Your task to perform on an android device: open app "Adobe Express: Graphic Design" (install if not already installed) Image 0: 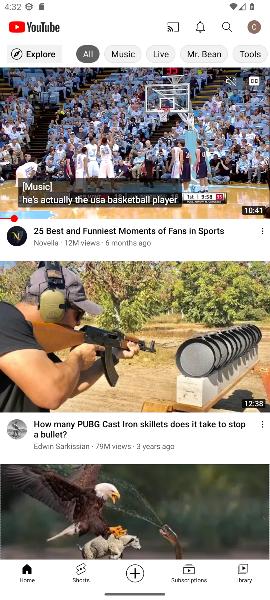
Step 0: press home button
Your task to perform on an android device: open app "Adobe Express: Graphic Design" (install if not already installed) Image 1: 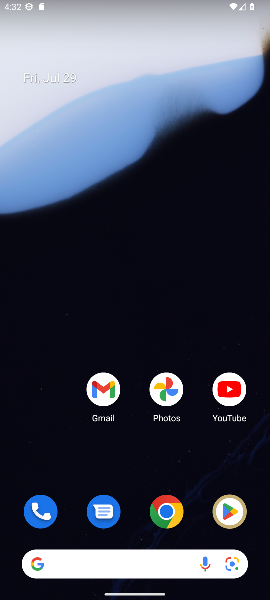
Step 1: drag from (97, 461) to (97, 194)
Your task to perform on an android device: open app "Adobe Express: Graphic Design" (install if not already installed) Image 2: 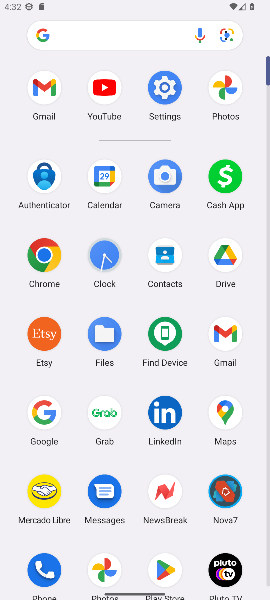
Step 2: click (164, 569)
Your task to perform on an android device: open app "Adobe Express: Graphic Design" (install if not already installed) Image 3: 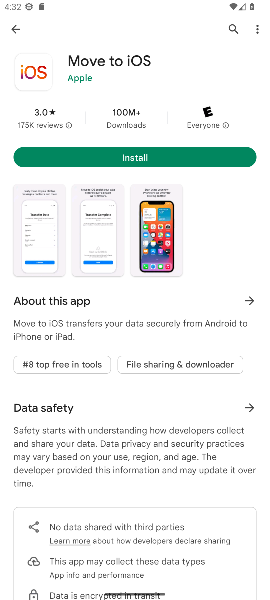
Step 3: click (40, 29)
Your task to perform on an android device: open app "Adobe Express: Graphic Design" (install if not already installed) Image 4: 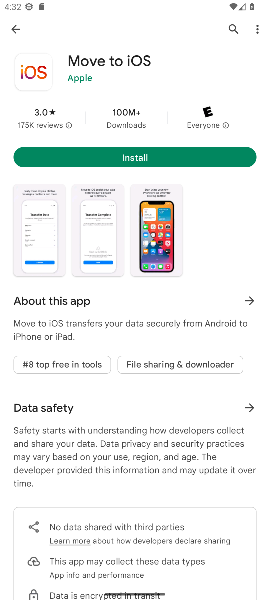
Step 4: click (18, 32)
Your task to perform on an android device: open app "Adobe Express: Graphic Design" (install if not already installed) Image 5: 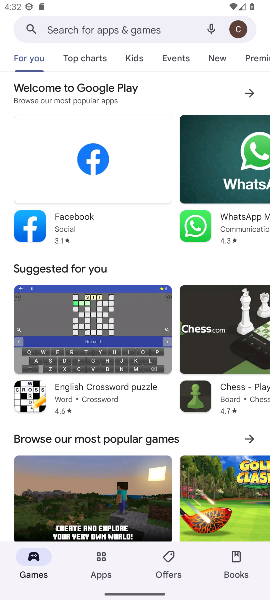
Step 5: click (78, 30)
Your task to perform on an android device: open app "Adobe Express: Graphic Design" (install if not already installed) Image 6: 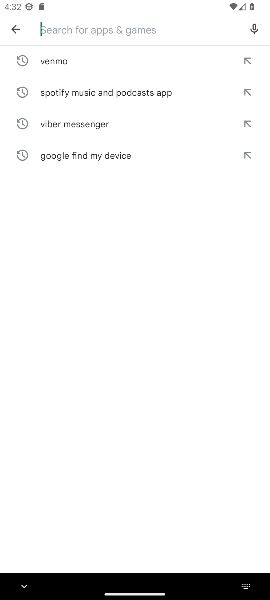
Step 6: type "adobe express graphic design"
Your task to perform on an android device: open app "Adobe Express: Graphic Design" (install if not already installed) Image 7: 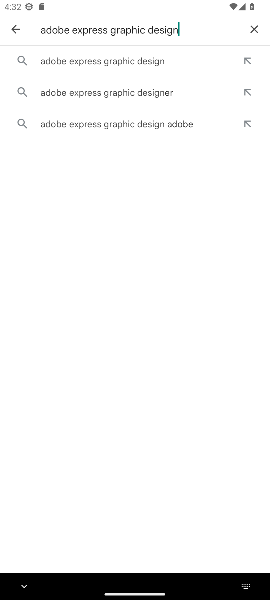
Step 7: click (91, 60)
Your task to perform on an android device: open app "Adobe Express: Graphic Design" (install if not already installed) Image 8: 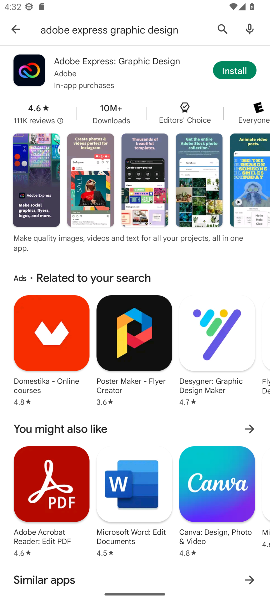
Step 8: click (229, 74)
Your task to perform on an android device: open app "Adobe Express: Graphic Design" (install if not already installed) Image 9: 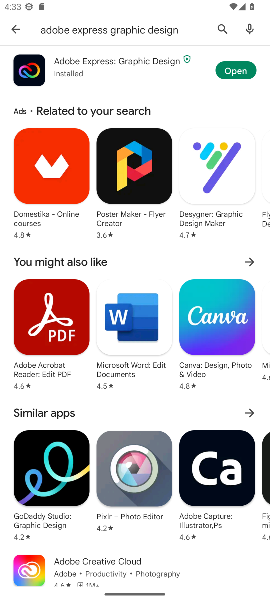
Step 9: click (244, 68)
Your task to perform on an android device: open app "Adobe Express: Graphic Design" (install if not already installed) Image 10: 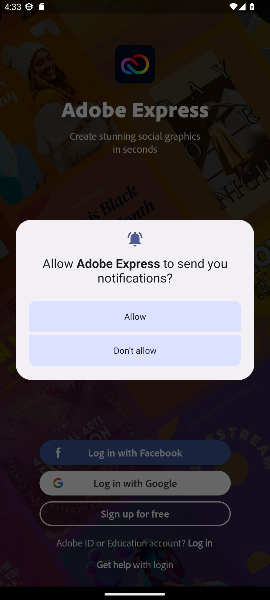
Step 10: task complete